Your task to perform on an android device: delete location history Image 0: 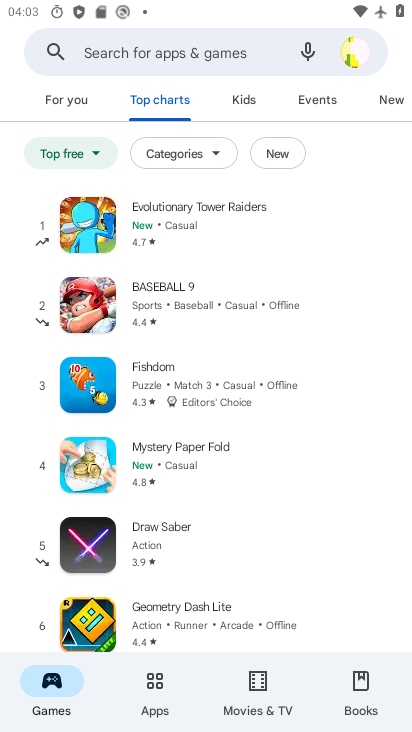
Step 0: press home button
Your task to perform on an android device: delete location history Image 1: 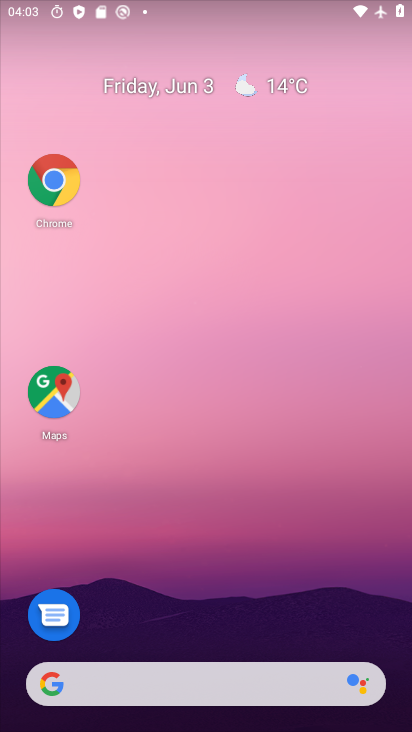
Step 1: drag from (132, 729) to (130, 86)
Your task to perform on an android device: delete location history Image 2: 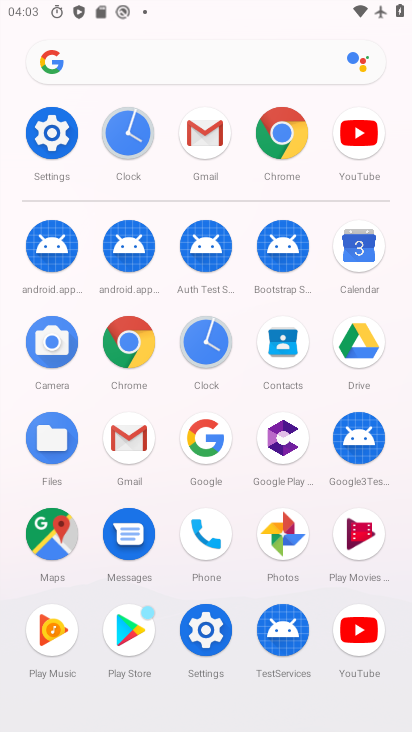
Step 2: click (30, 142)
Your task to perform on an android device: delete location history Image 3: 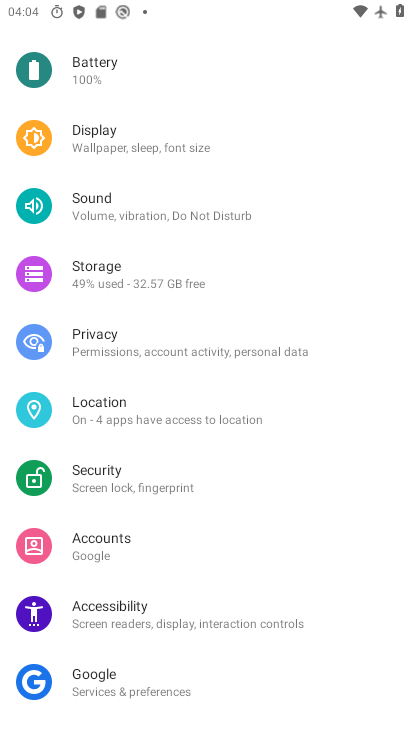
Step 3: drag from (210, 686) to (267, 103)
Your task to perform on an android device: delete location history Image 4: 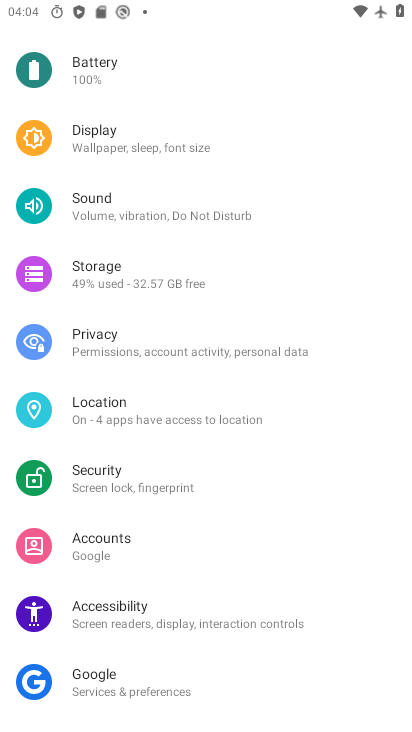
Step 4: click (116, 415)
Your task to perform on an android device: delete location history Image 5: 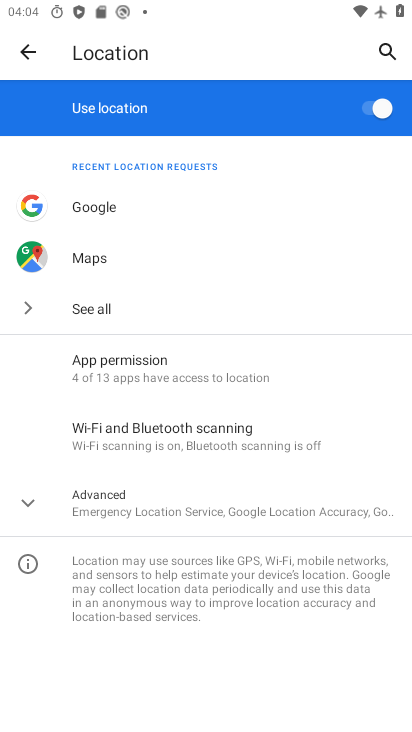
Step 5: click (134, 503)
Your task to perform on an android device: delete location history Image 6: 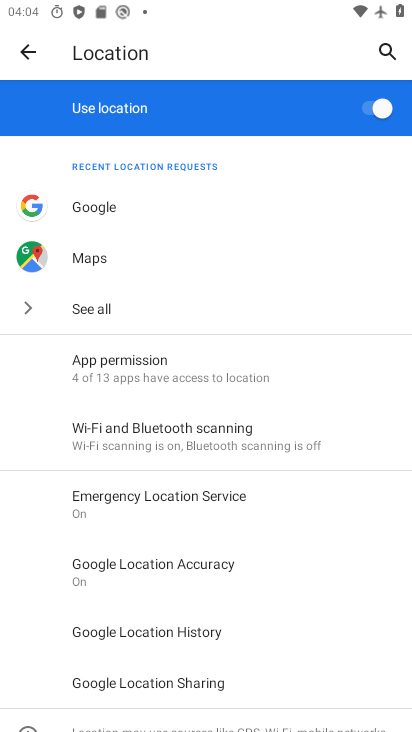
Step 6: click (178, 633)
Your task to perform on an android device: delete location history Image 7: 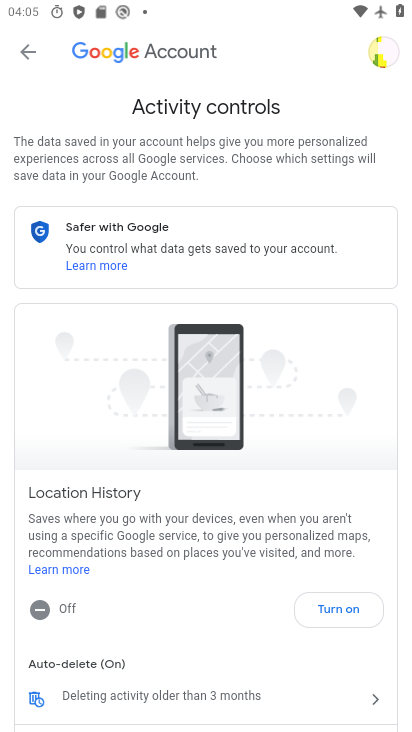
Step 7: click (158, 691)
Your task to perform on an android device: delete location history Image 8: 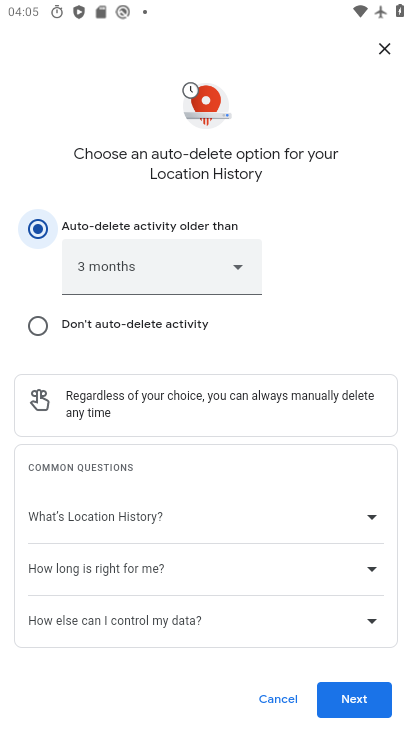
Step 8: click (355, 704)
Your task to perform on an android device: delete location history Image 9: 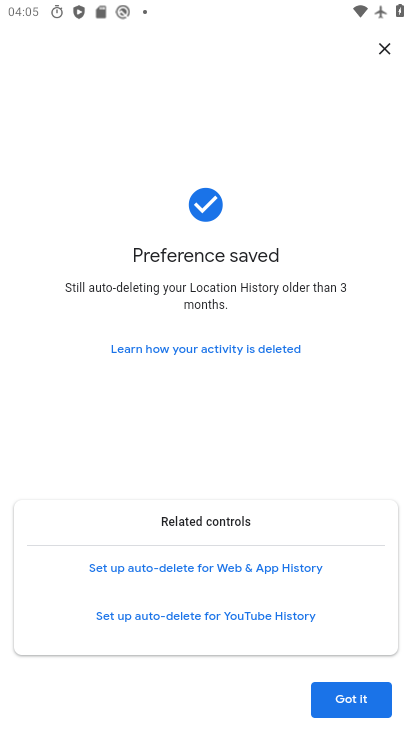
Step 9: click (338, 712)
Your task to perform on an android device: delete location history Image 10: 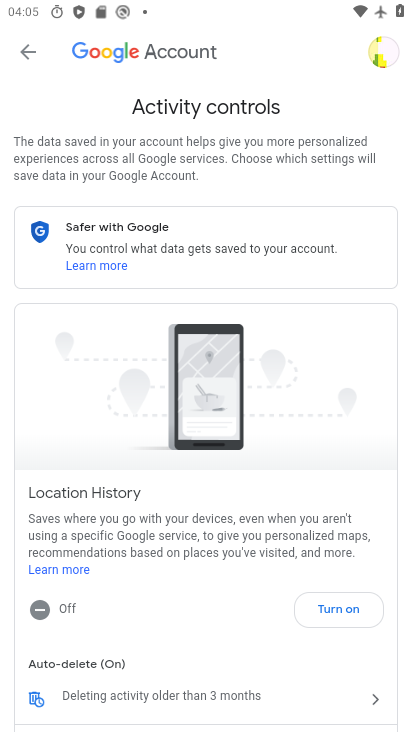
Step 10: task complete